Your task to perform on an android device: turn on improve location accuracy Image 0: 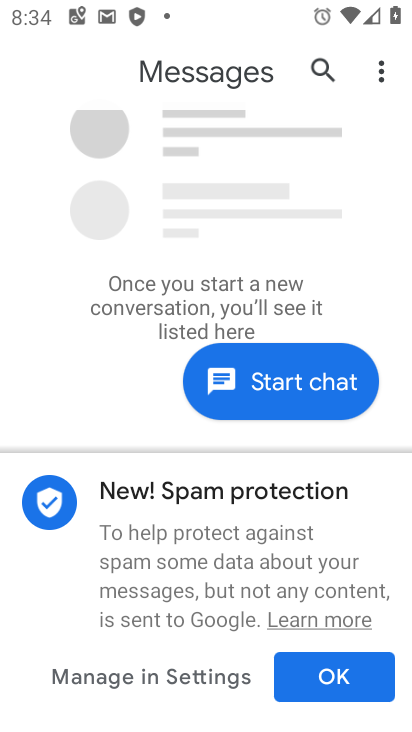
Step 0: press home button
Your task to perform on an android device: turn on improve location accuracy Image 1: 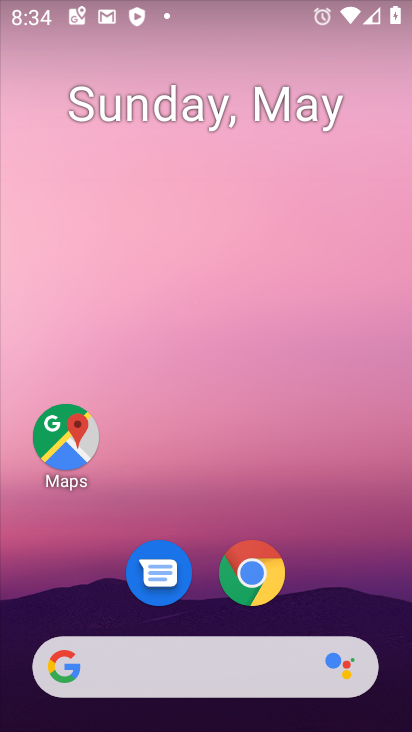
Step 1: drag from (198, 502) to (224, 31)
Your task to perform on an android device: turn on improve location accuracy Image 2: 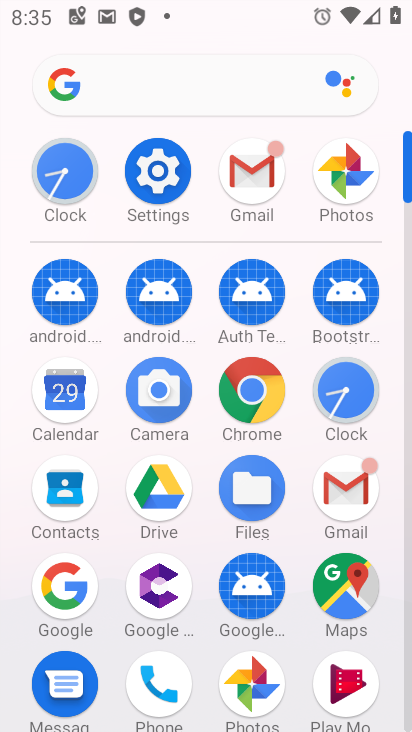
Step 2: click (164, 168)
Your task to perform on an android device: turn on improve location accuracy Image 3: 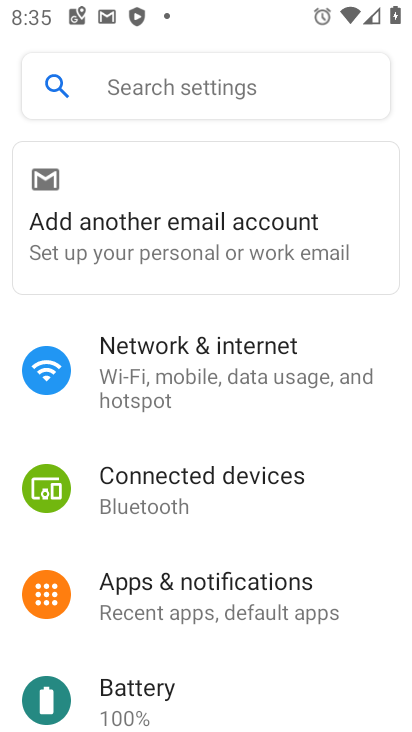
Step 3: drag from (189, 633) to (259, 84)
Your task to perform on an android device: turn on improve location accuracy Image 4: 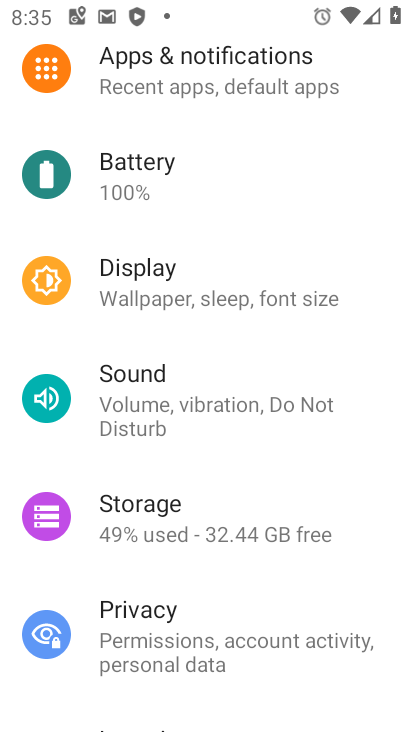
Step 4: drag from (225, 428) to (210, 81)
Your task to perform on an android device: turn on improve location accuracy Image 5: 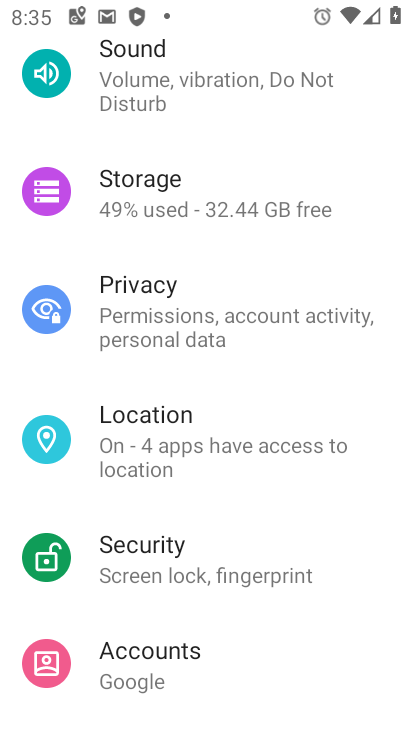
Step 5: click (205, 439)
Your task to perform on an android device: turn on improve location accuracy Image 6: 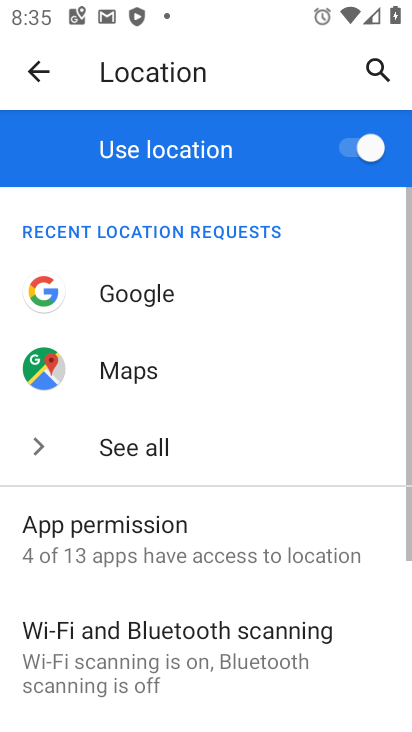
Step 6: drag from (223, 585) to (265, 91)
Your task to perform on an android device: turn on improve location accuracy Image 7: 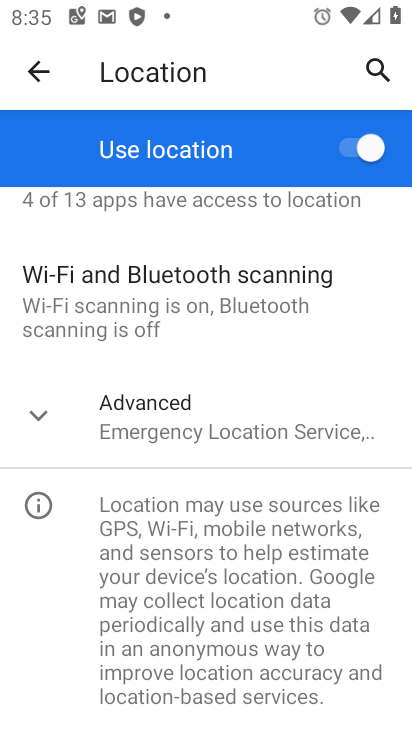
Step 7: click (36, 412)
Your task to perform on an android device: turn on improve location accuracy Image 8: 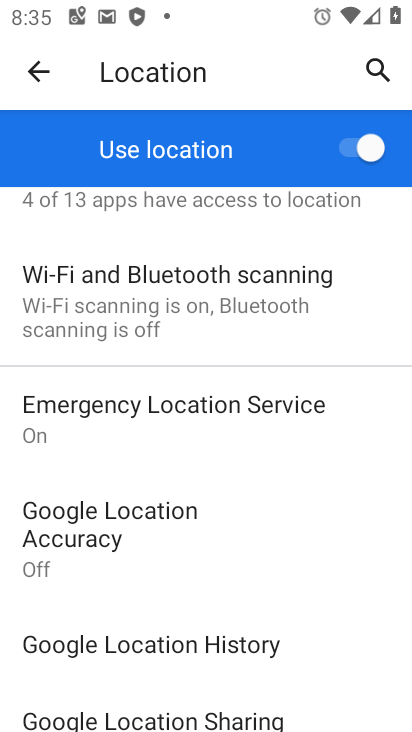
Step 8: click (167, 536)
Your task to perform on an android device: turn on improve location accuracy Image 9: 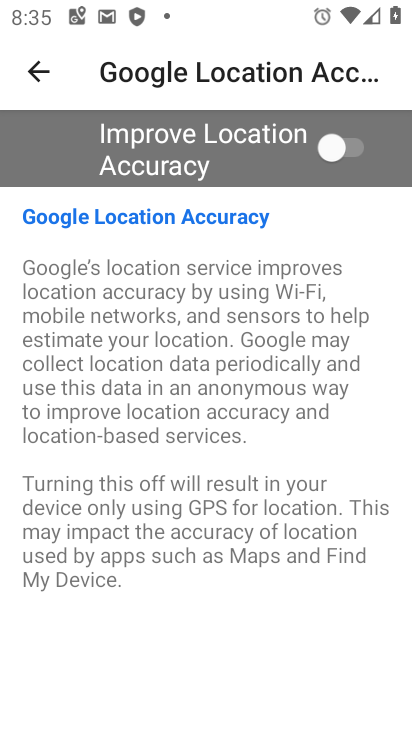
Step 9: click (334, 142)
Your task to perform on an android device: turn on improve location accuracy Image 10: 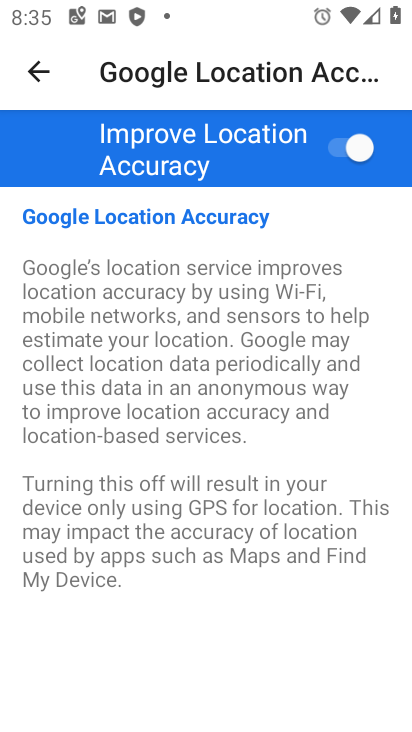
Step 10: task complete